Your task to perform on an android device: Go to sound settings Image 0: 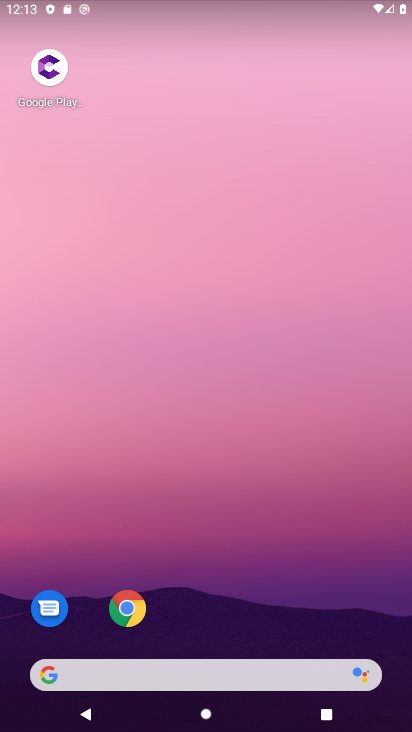
Step 0: drag from (283, 1) to (244, 0)
Your task to perform on an android device: Go to sound settings Image 1: 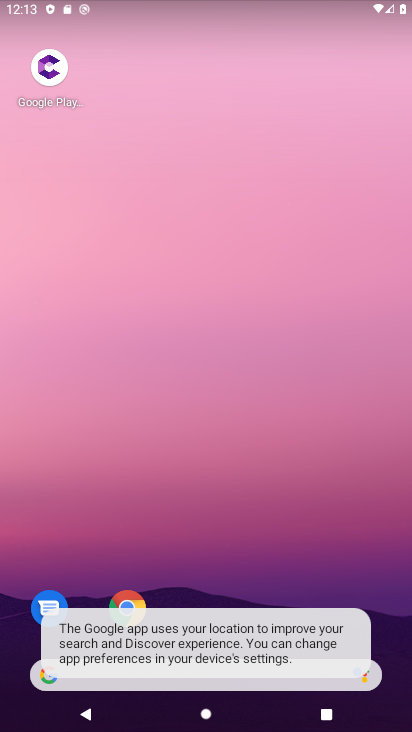
Step 1: drag from (358, 600) to (317, 29)
Your task to perform on an android device: Go to sound settings Image 2: 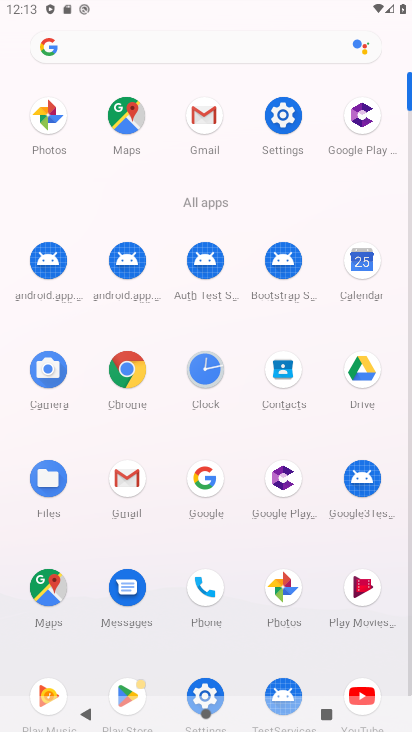
Step 2: click (285, 112)
Your task to perform on an android device: Go to sound settings Image 3: 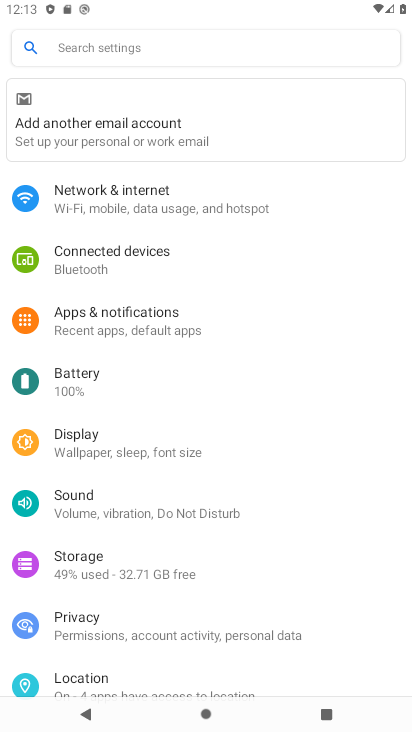
Step 3: click (86, 511)
Your task to perform on an android device: Go to sound settings Image 4: 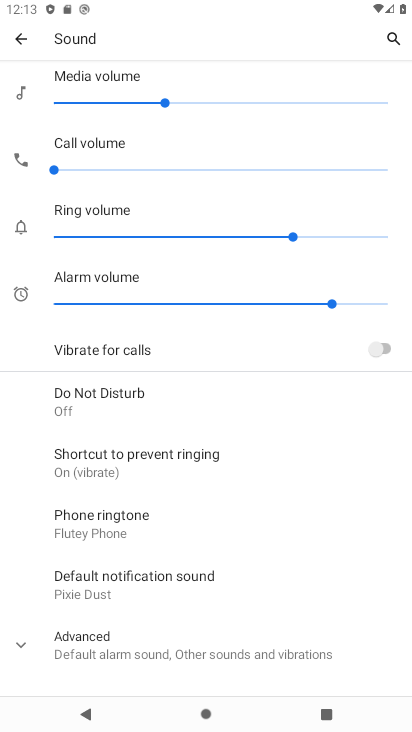
Step 4: task complete